Your task to perform on an android device: check google app version Image 0: 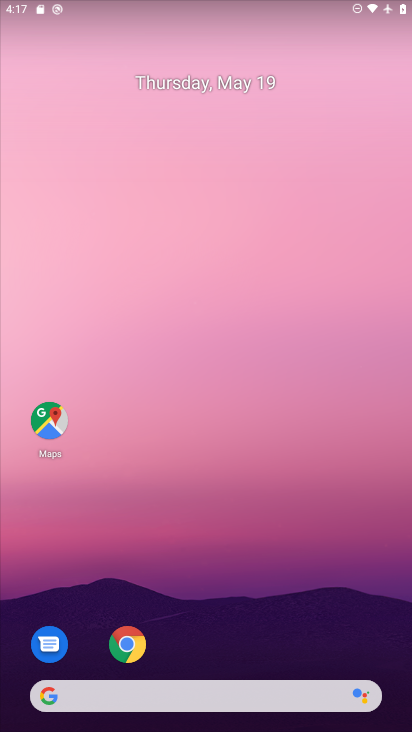
Step 0: drag from (250, 570) to (224, 59)
Your task to perform on an android device: check google app version Image 1: 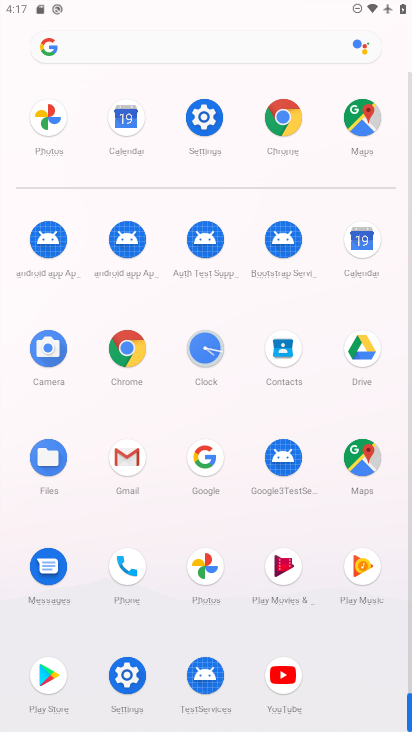
Step 1: drag from (11, 599) to (36, 288)
Your task to perform on an android device: check google app version Image 2: 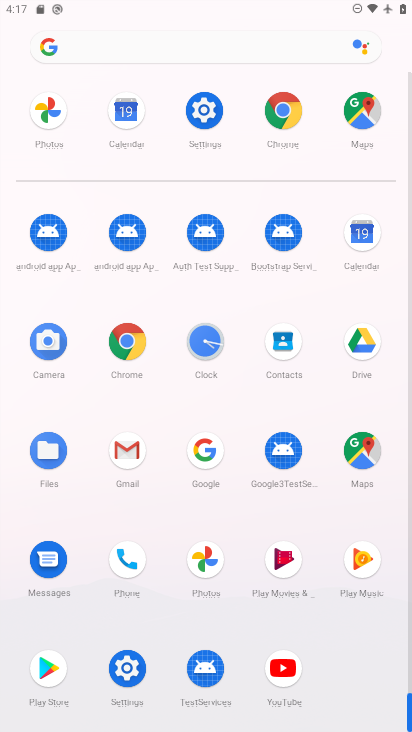
Step 2: click (201, 447)
Your task to perform on an android device: check google app version Image 3: 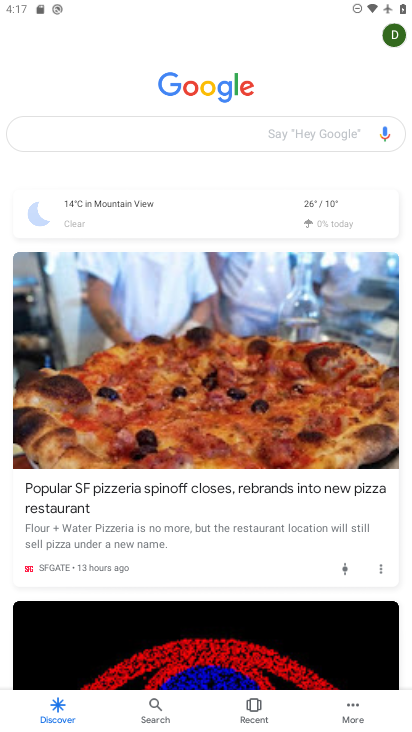
Step 3: click (348, 702)
Your task to perform on an android device: check google app version Image 4: 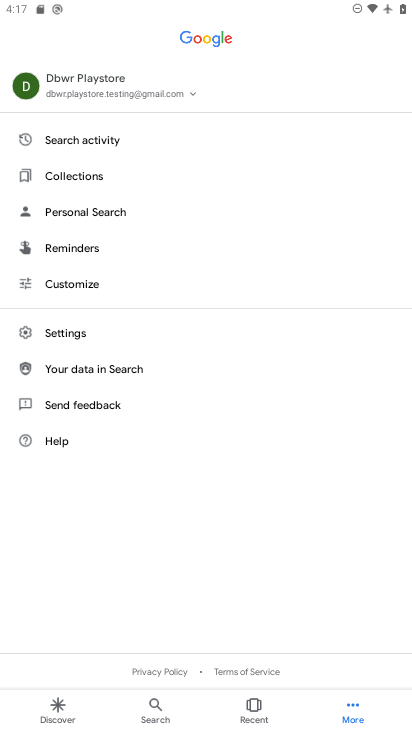
Step 4: click (102, 332)
Your task to perform on an android device: check google app version Image 5: 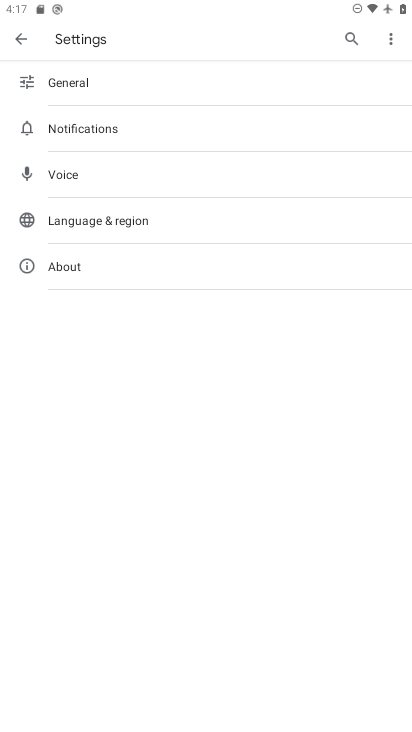
Step 5: click (94, 259)
Your task to perform on an android device: check google app version Image 6: 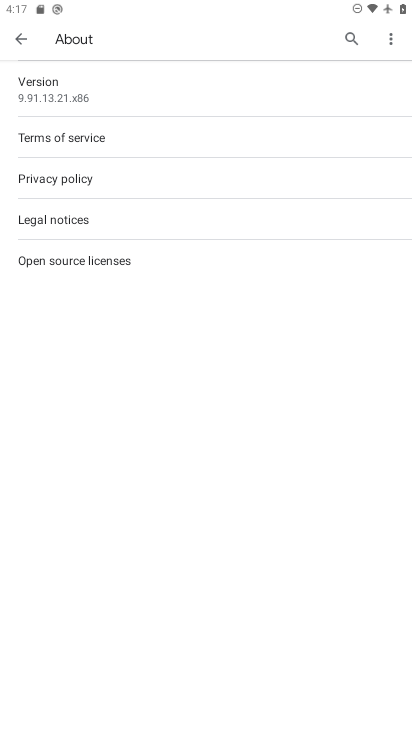
Step 6: task complete